Your task to perform on an android device: toggle location history Image 0: 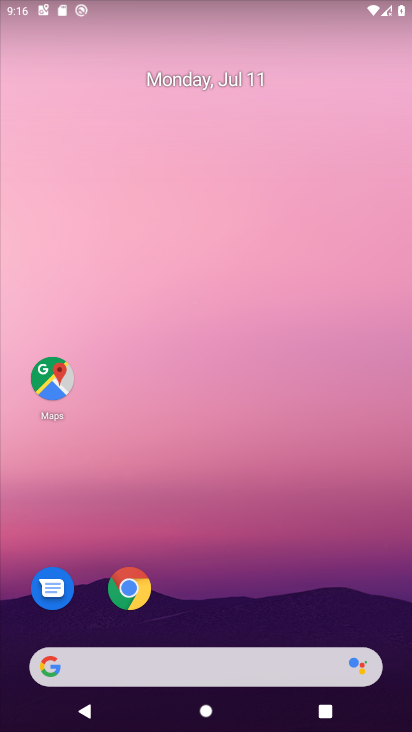
Step 0: drag from (226, 705) to (216, 231)
Your task to perform on an android device: toggle location history Image 1: 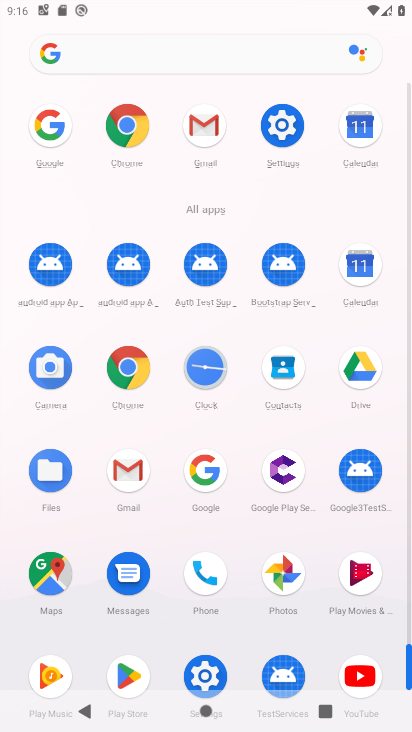
Step 1: click (269, 127)
Your task to perform on an android device: toggle location history Image 2: 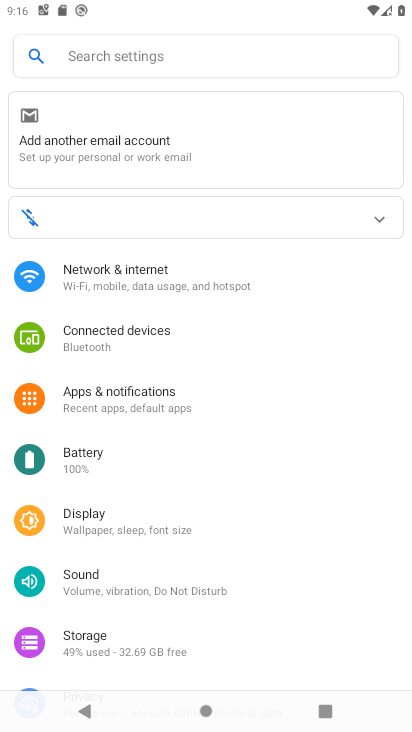
Step 2: drag from (188, 596) to (203, 293)
Your task to perform on an android device: toggle location history Image 3: 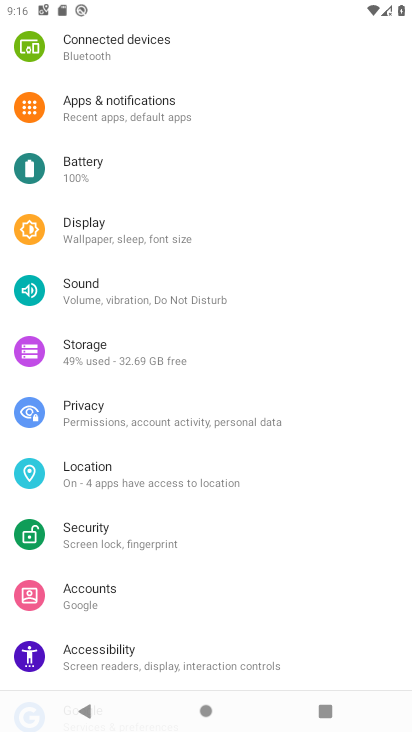
Step 3: click (141, 477)
Your task to perform on an android device: toggle location history Image 4: 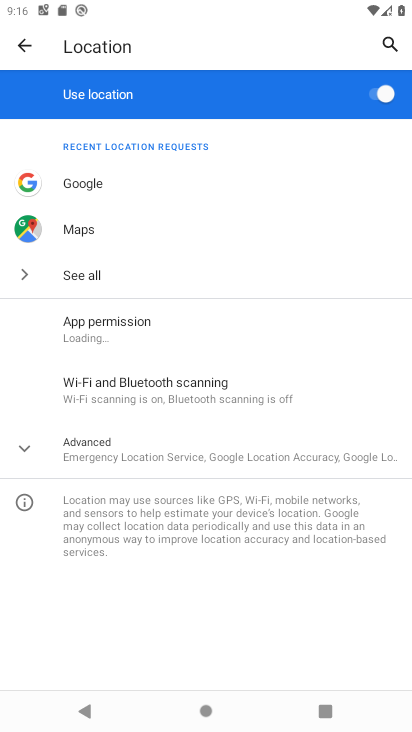
Step 4: click (165, 441)
Your task to perform on an android device: toggle location history Image 5: 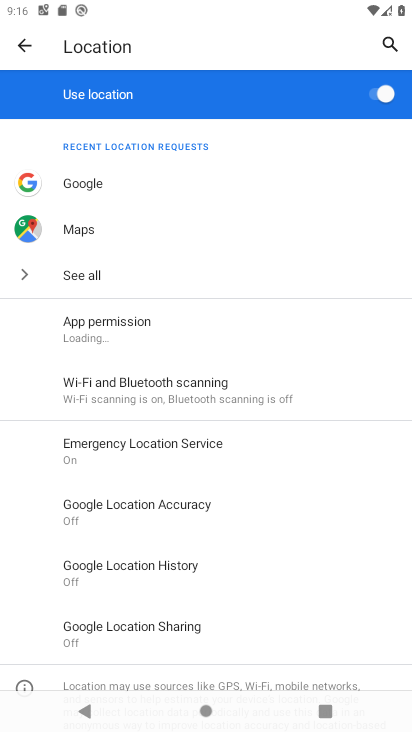
Step 5: click (199, 578)
Your task to perform on an android device: toggle location history Image 6: 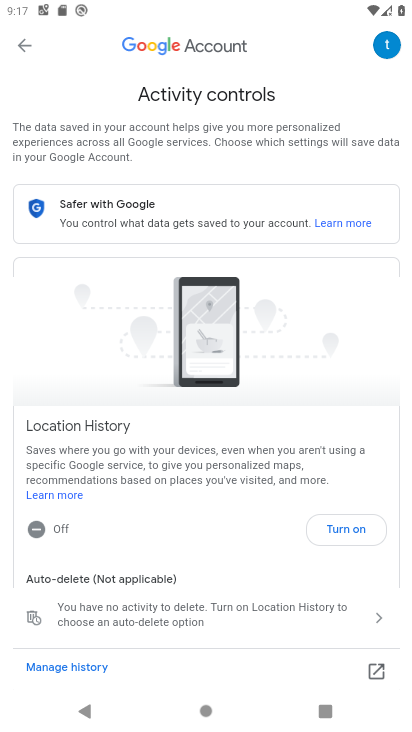
Step 6: click (327, 524)
Your task to perform on an android device: toggle location history Image 7: 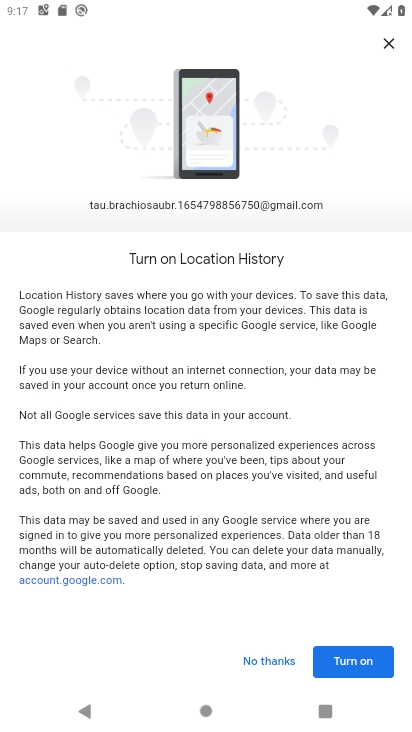
Step 7: click (345, 655)
Your task to perform on an android device: toggle location history Image 8: 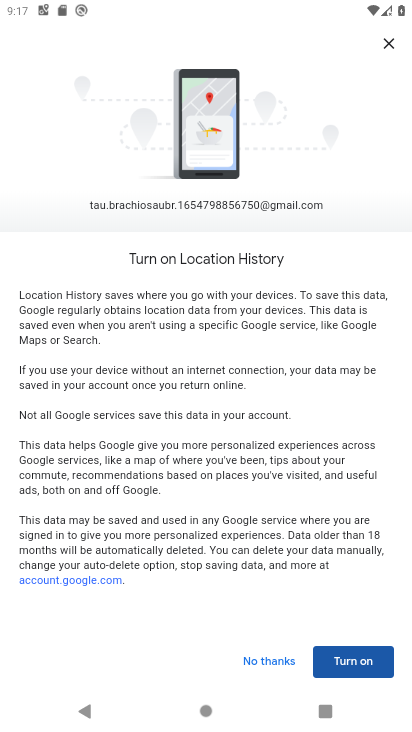
Step 8: task complete